Your task to perform on an android device: Search for the best selling coffee table on Crate & Barrel Image 0: 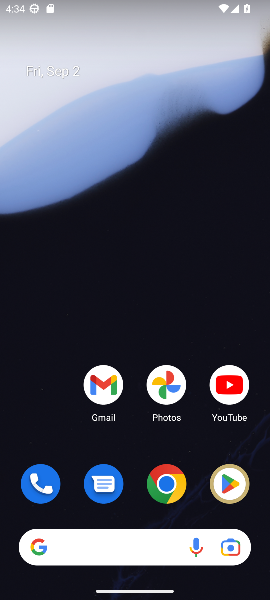
Step 0: click (174, 480)
Your task to perform on an android device: Search for the best selling coffee table on Crate & Barrel Image 1: 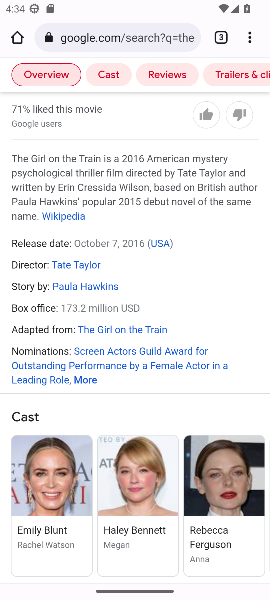
Step 1: click (169, 33)
Your task to perform on an android device: Search for the best selling coffee table on Crate & Barrel Image 2: 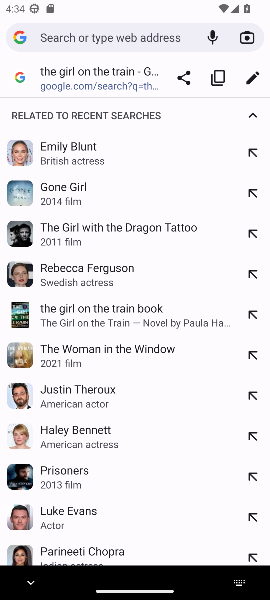
Step 2: type "Crate & Barrel"
Your task to perform on an android device: Search for the best selling coffee table on Crate & Barrel Image 3: 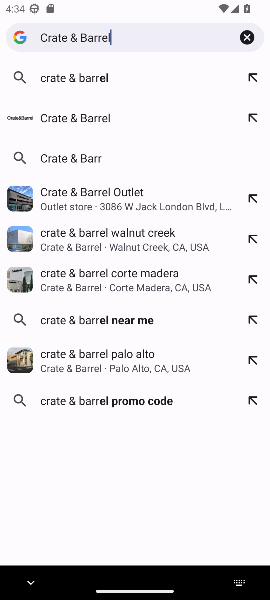
Step 3: press enter
Your task to perform on an android device: Search for the best selling coffee table on Crate & Barrel Image 4: 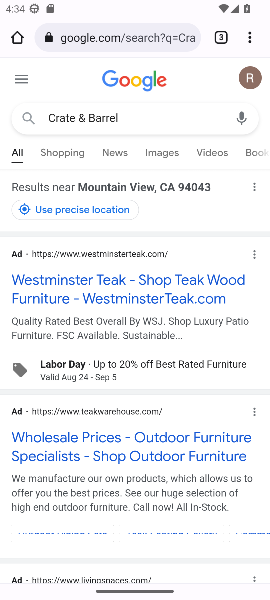
Step 4: drag from (112, 475) to (196, 227)
Your task to perform on an android device: Search for the best selling coffee table on Crate & Barrel Image 5: 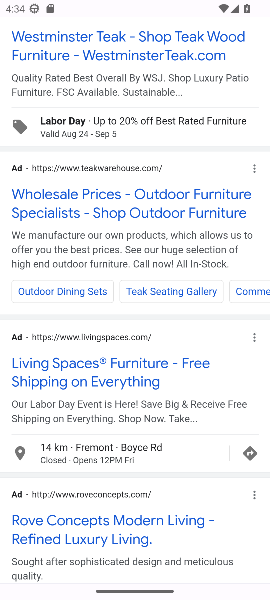
Step 5: drag from (147, 499) to (195, 247)
Your task to perform on an android device: Search for the best selling coffee table on Crate & Barrel Image 6: 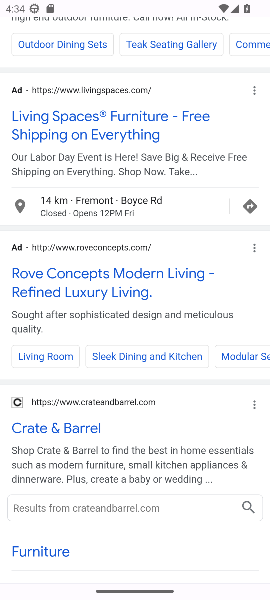
Step 6: click (87, 424)
Your task to perform on an android device: Search for the best selling coffee table on Crate & Barrel Image 7: 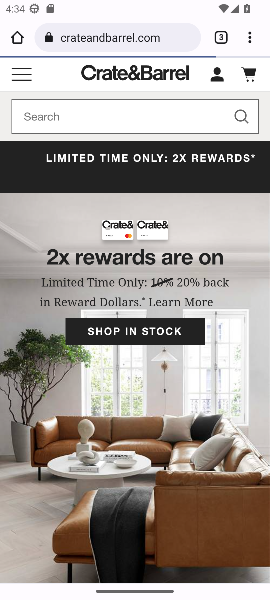
Step 7: click (161, 121)
Your task to perform on an android device: Search for the best selling coffee table on Crate & Barrel Image 8: 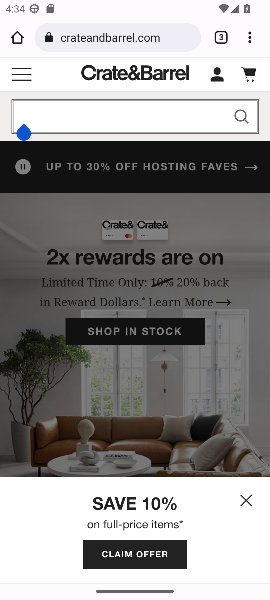
Step 8: type "coffee table"
Your task to perform on an android device: Search for the best selling coffee table on Crate & Barrel Image 9: 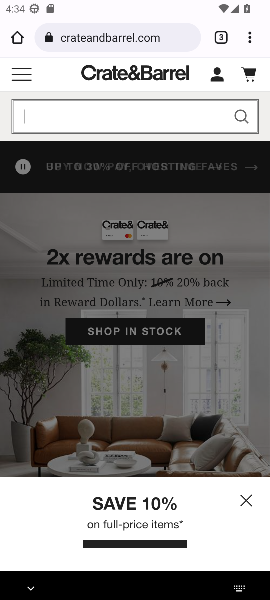
Step 9: press enter
Your task to perform on an android device: Search for the best selling coffee table on Crate & Barrel Image 10: 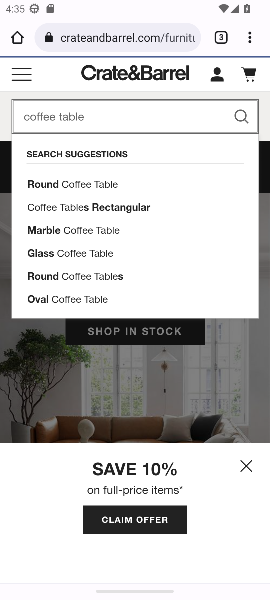
Step 10: click (246, 464)
Your task to perform on an android device: Search for the best selling coffee table on Crate & Barrel Image 11: 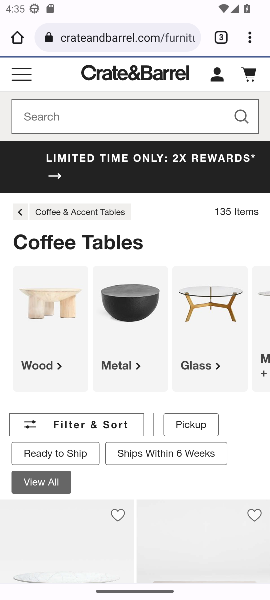
Step 11: drag from (143, 494) to (175, 299)
Your task to perform on an android device: Search for the best selling coffee table on Crate & Barrel Image 12: 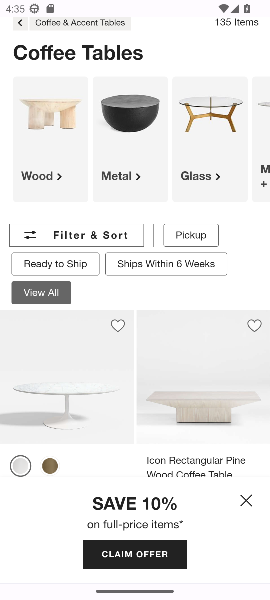
Step 12: click (244, 500)
Your task to perform on an android device: Search for the best selling coffee table on Crate & Barrel Image 13: 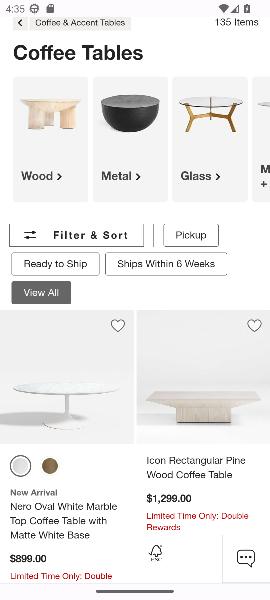
Step 13: task complete